Your task to perform on an android device: Go to Yahoo.com Image 0: 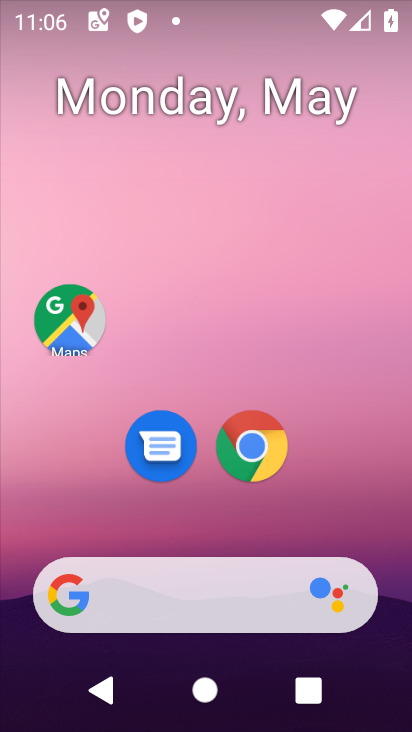
Step 0: click (267, 424)
Your task to perform on an android device: Go to Yahoo.com Image 1: 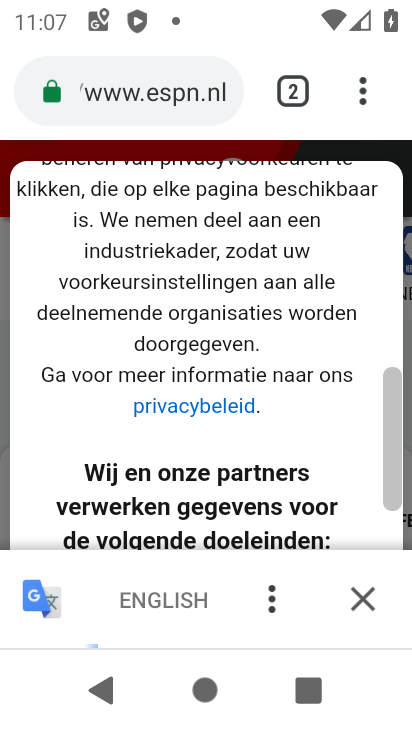
Step 1: click (175, 93)
Your task to perform on an android device: Go to Yahoo.com Image 2: 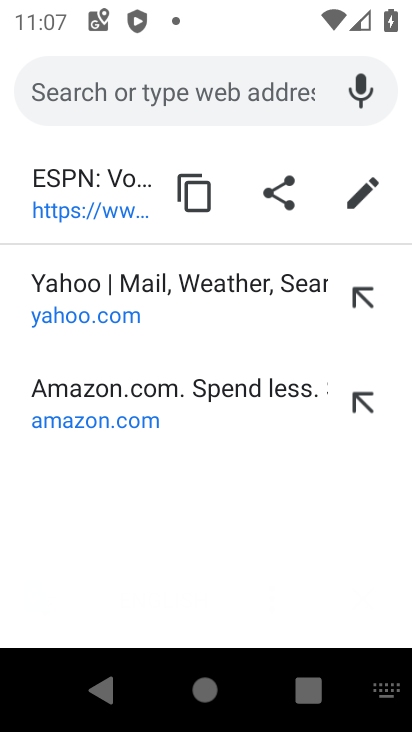
Step 2: click (124, 327)
Your task to perform on an android device: Go to Yahoo.com Image 3: 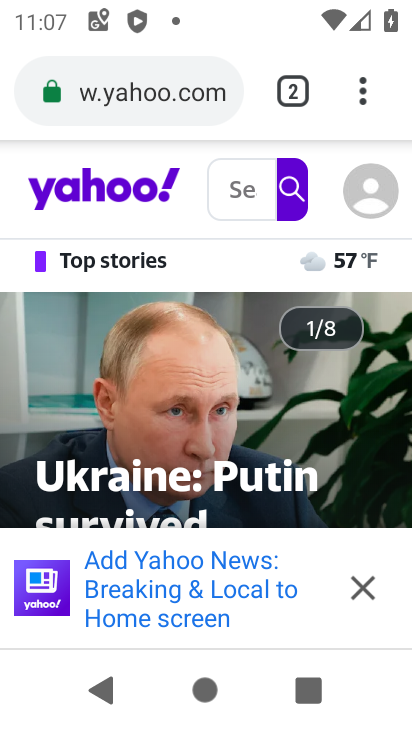
Step 3: task complete